Your task to perform on an android device: Open Google Chrome Image 0: 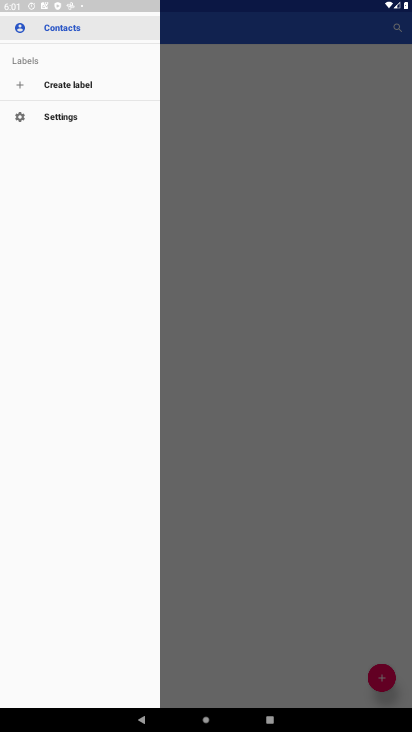
Step 0: press home button
Your task to perform on an android device: Open Google Chrome Image 1: 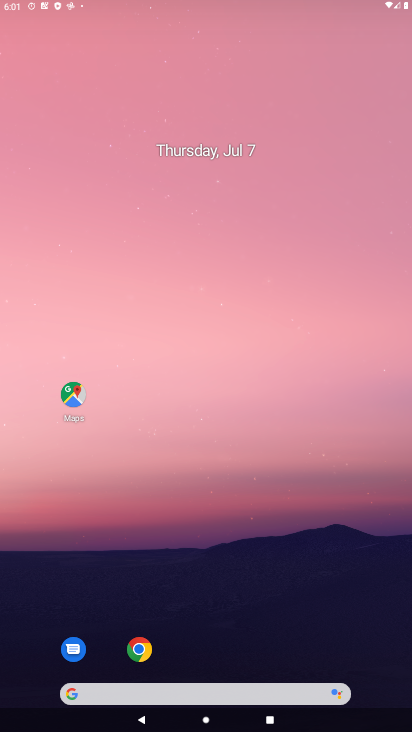
Step 1: drag from (360, 674) to (288, 78)
Your task to perform on an android device: Open Google Chrome Image 2: 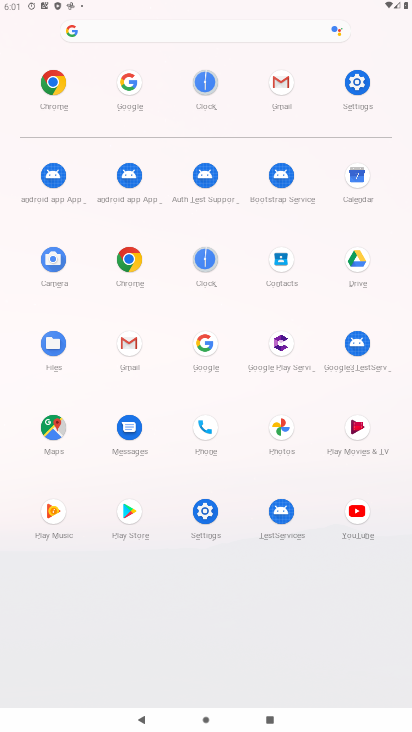
Step 2: click (114, 262)
Your task to perform on an android device: Open Google Chrome Image 3: 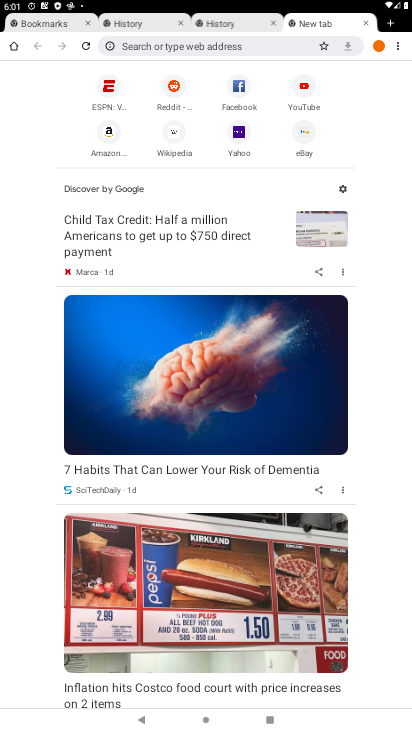
Step 3: task complete